Your task to perform on an android device: Go to accessibility settings Image 0: 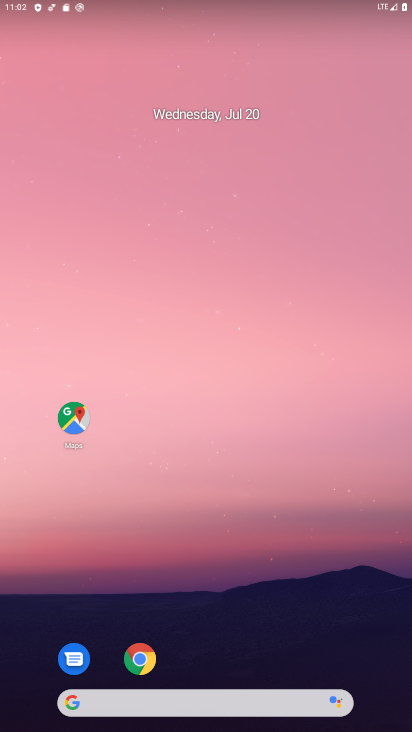
Step 0: drag from (220, 709) to (229, 169)
Your task to perform on an android device: Go to accessibility settings Image 1: 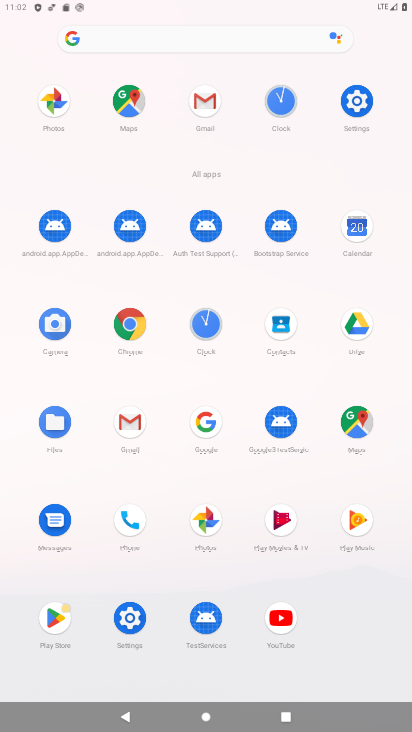
Step 1: click (351, 104)
Your task to perform on an android device: Go to accessibility settings Image 2: 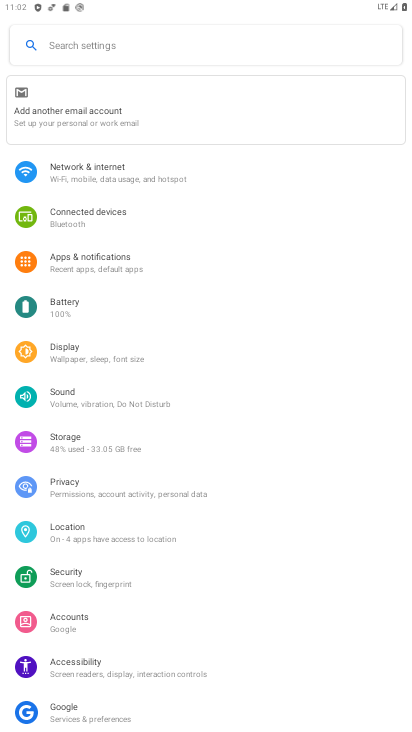
Step 2: click (76, 671)
Your task to perform on an android device: Go to accessibility settings Image 3: 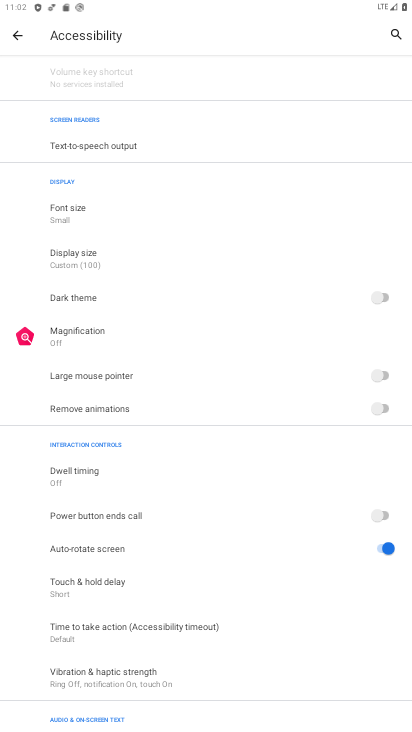
Step 3: task complete